Your task to perform on an android device: turn on translation in the chrome app Image 0: 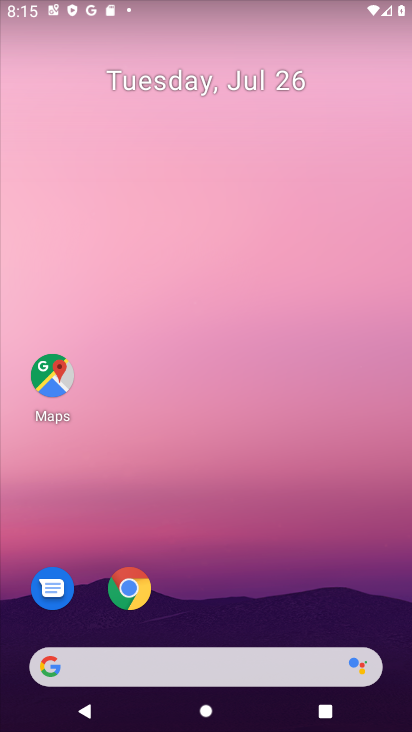
Step 0: press home button
Your task to perform on an android device: turn on translation in the chrome app Image 1: 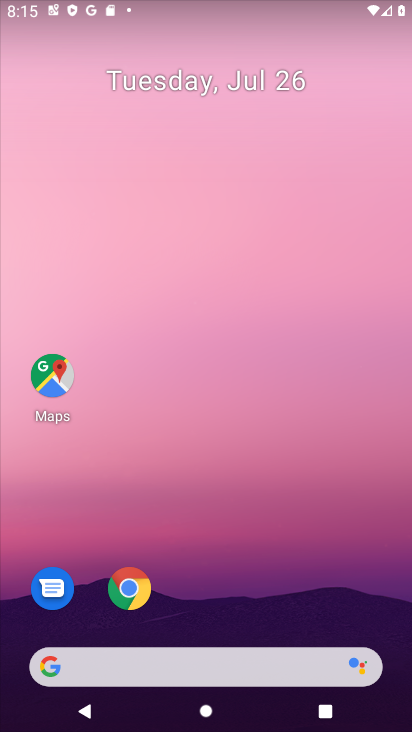
Step 1: click (137, 587)
Your task to perform on an android device: turn on translation in the chrome app Image 2: 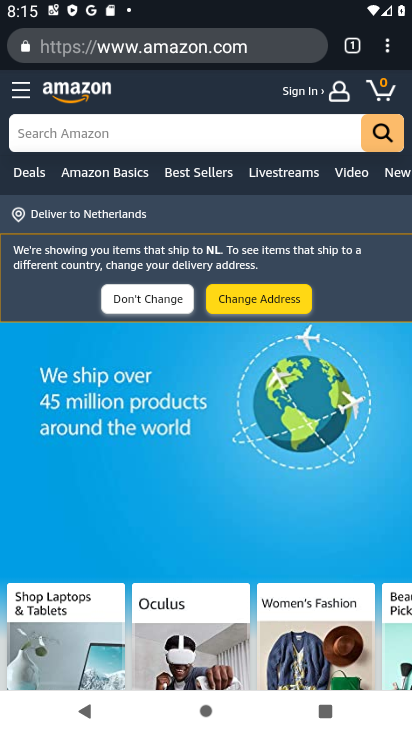
Step 2: drag from (388, 44) to (255, 544)
Your task to perform on an android device: turn on translation in the chrome app Image 3: 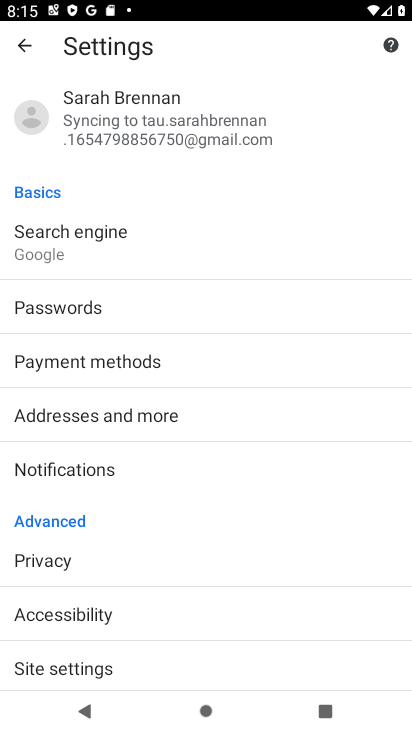
Step 3: drag from (129, 524) to (139, 183)
Your task to perform on an android device: turn on translation in the chrome app Image 4: 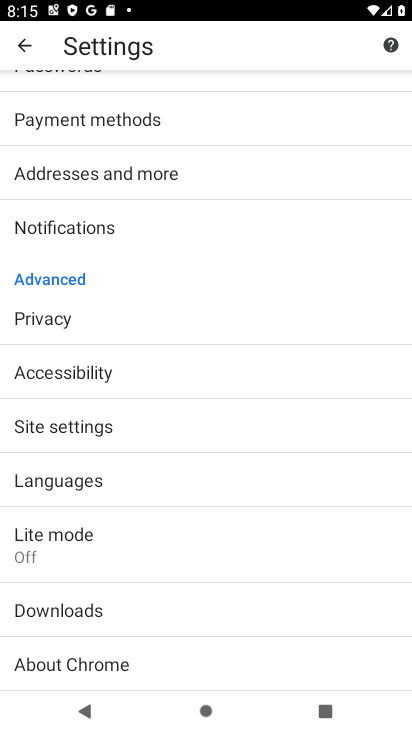
Step 4: click (57, 477)
Your task to perform on an android device: turn on translation in the chrome app Image 5: 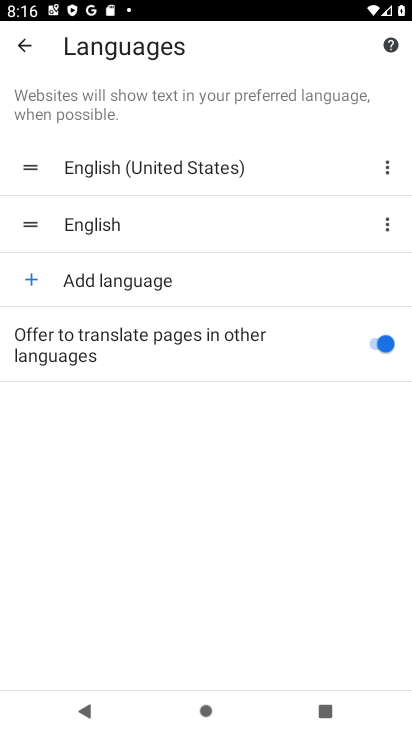
Step 5: task complete